Your task to perform on an android device: What is the recent news? Image 0: 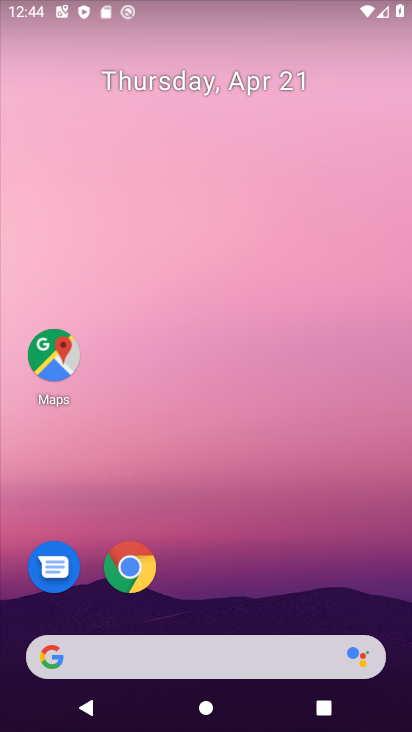
Step 0: drag from (293, 584) to (256, 117)
Your task to perform on an android device: What is the recent news? Image 1: 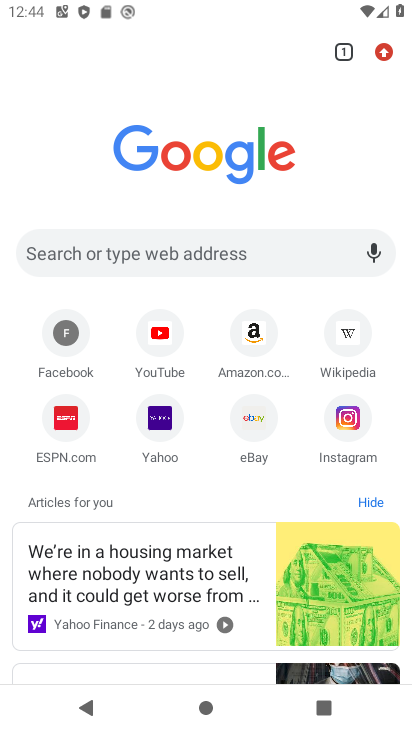
Step 1: press home button
Your task to perform on an android device: What is the recent news? Image 2: 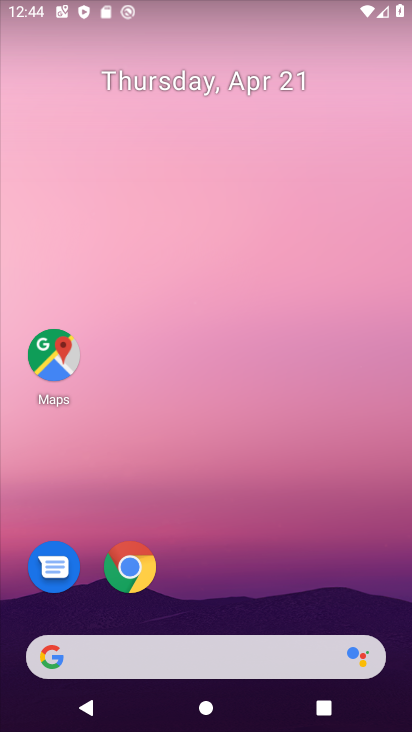
Step 2: click (127, 591)
Your task to perform on an android device: What is the recent news? Image 3: 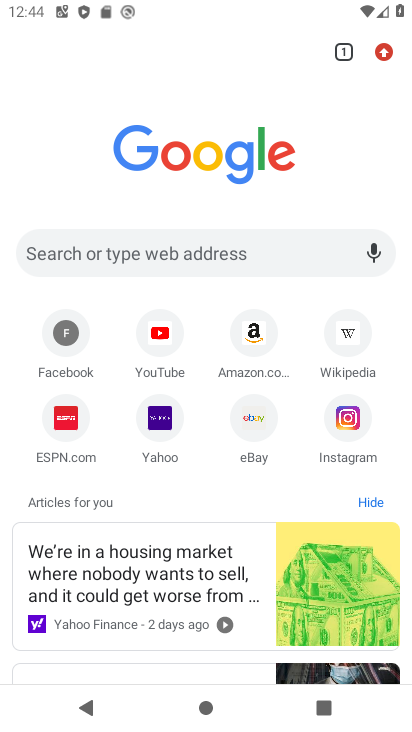
Step 3: click (304, 249)
Your task to perform on an android device: What is the recent news? Image 4: 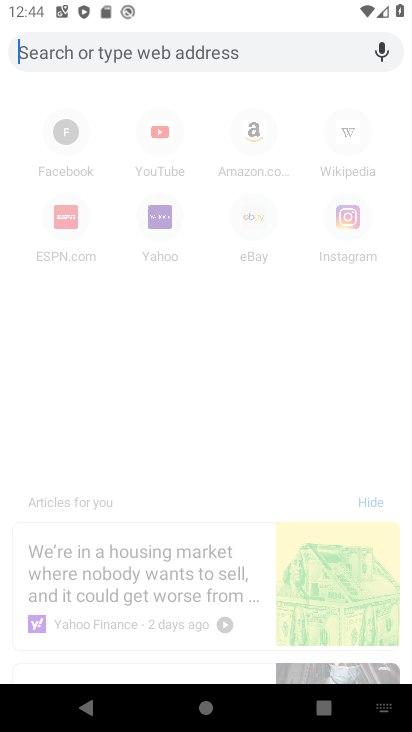
Step 4: type "What is the recent news?"
Your task to perform on an android device: What is the recent news? Image 5: 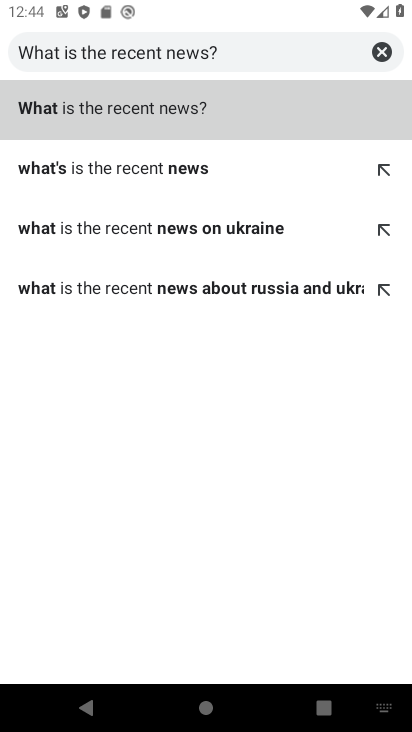
Step 5: click (176, 110)
Your task to perform on an android device: What is the recent news? Image 6: 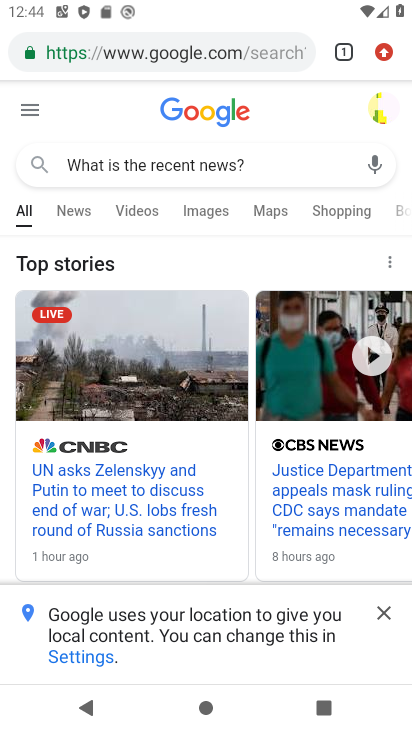
Step 6: task complete